Your task to perform on an android device: Turn on the flashlight Image 0: 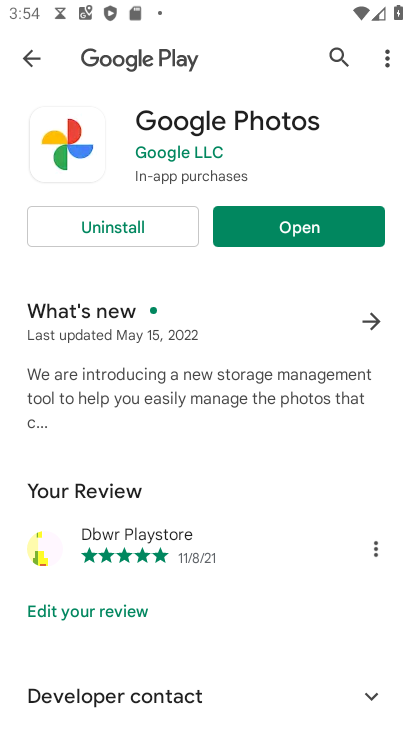
Step 0: press home button
Your task to perform on an android device: Turn on the flashlight Image 1: 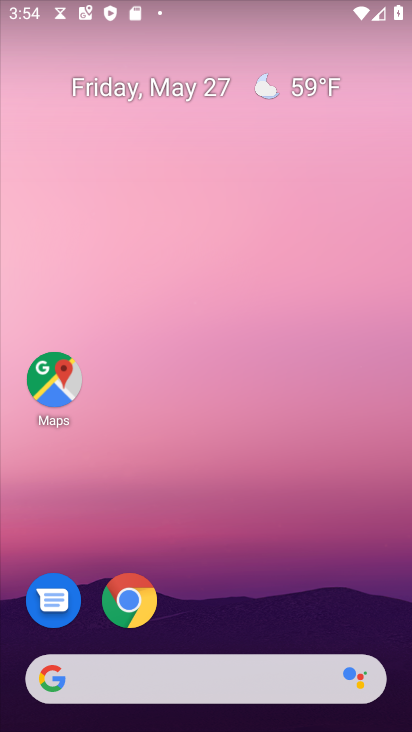
Step 1: drag from (218, 561) to (193, 70)
Your task to perform on an android device: Turn on the flashlight Image 2: 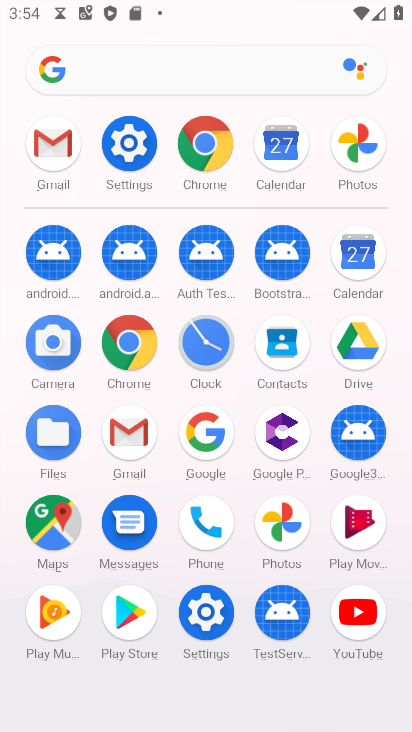
Step 2: click (126, 147)
Your task to perform on an android device: Turn on the flashlight Image 3: 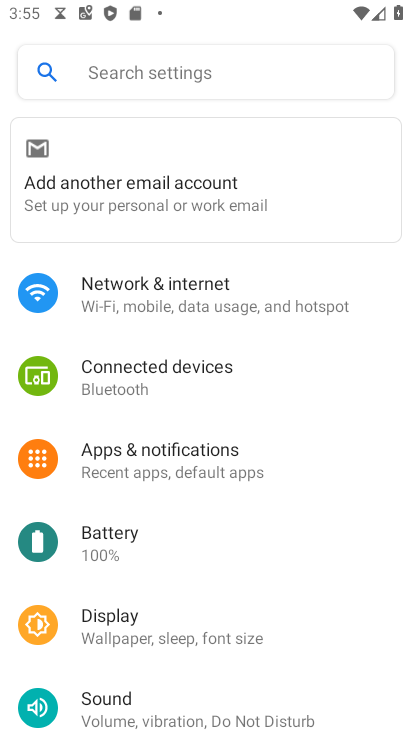
Step 3: click (164, 276)
Your task to perform on an android device: Turn on the flashlight Image 4: 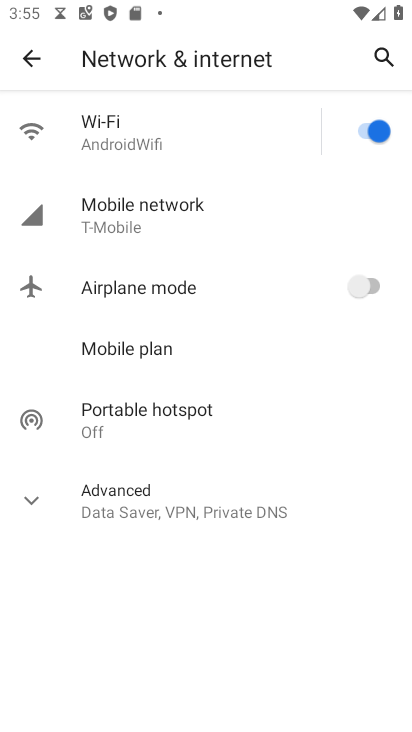
Step 4: press back button
Your task to perform on an android device: Turn on the flashlight Image 5: 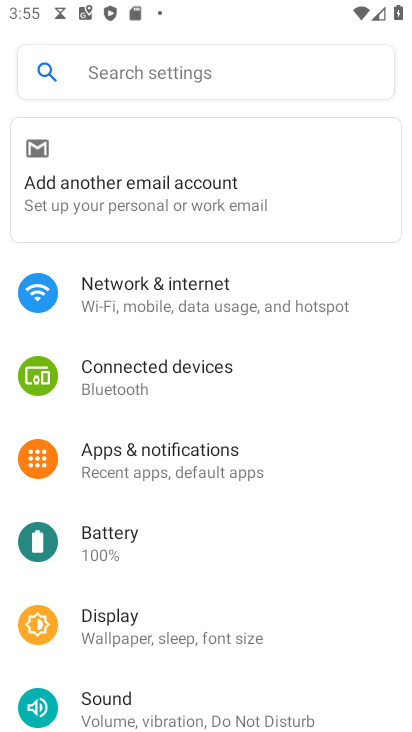
Step 5: drag from (169, 573) to (184, 440)
Your task to perform on an android device: Turn on the flashlight Image 6: 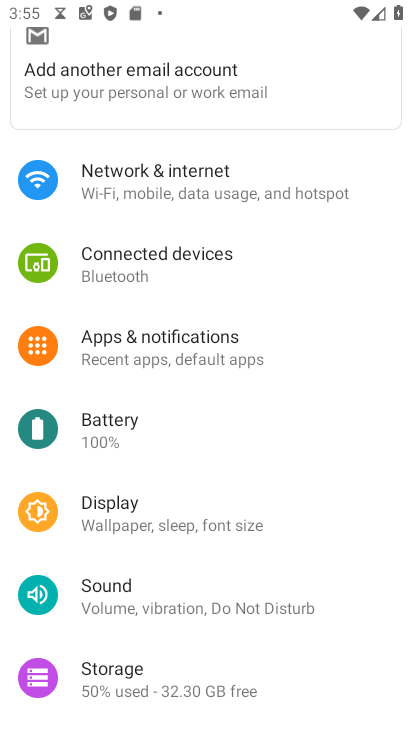
Step 6: drag from (136, 555) to (208, 440)
Your task to perform on an android device: Turn on the flashlight Image 7: 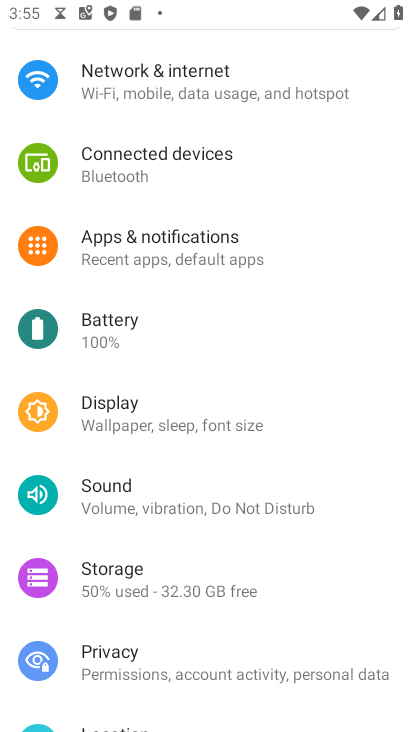
Step 7: drag from (180, 571) to (206, 503)
Your task to perform on an android device: Turn on the flashlight Image 8: 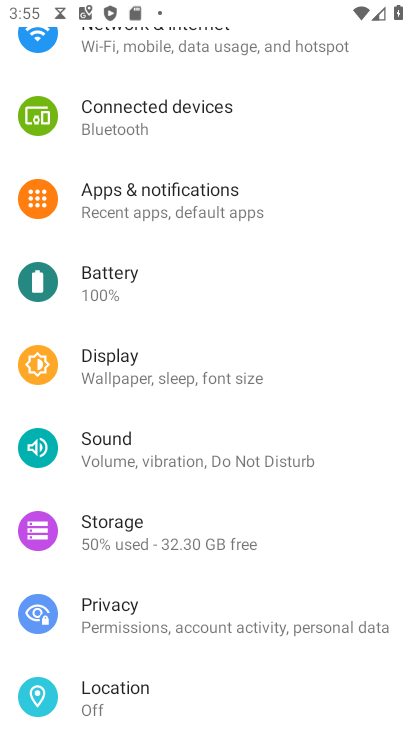
Step 8: click (194, 386)
Your task to perform on an android device: Turn on the flashlight Image 9: 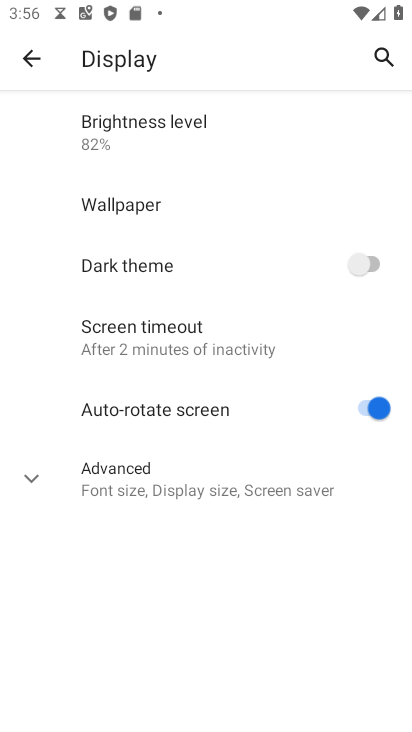
Step 9: click (187, 507)
Your task to perform on an android device: Turn on the flashlight Image 10: 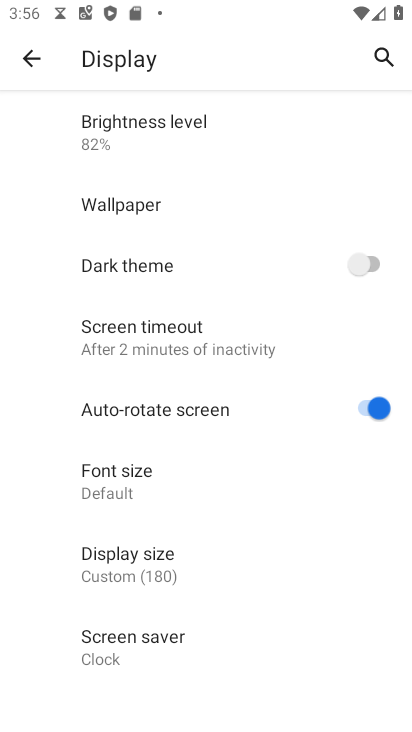
Step 10: task complete